Your task to perform on an android device: Show me the alarms in the clock app Image 0: 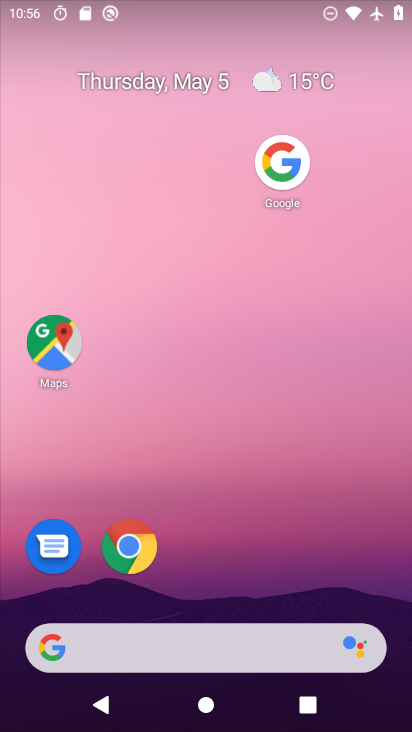
Step 0: drag from (214, 616) to (299, 141)
Your task to perform on an android device: Show me the alarms in the clock app Image 1: 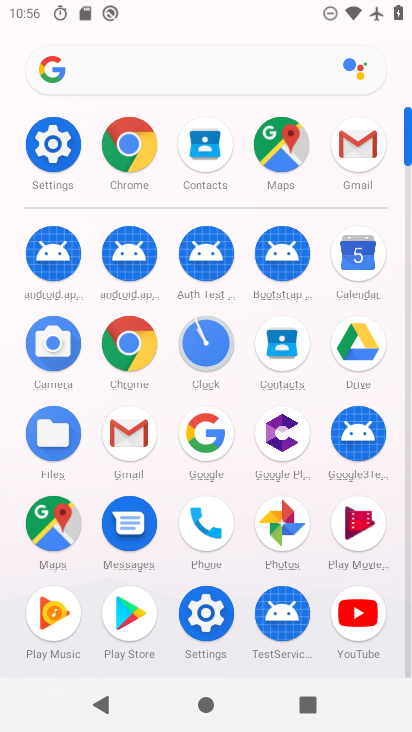
Step 1: click (204, 352)
Your task to perform on an android device: Show me the alarms in the clock app Image 2: 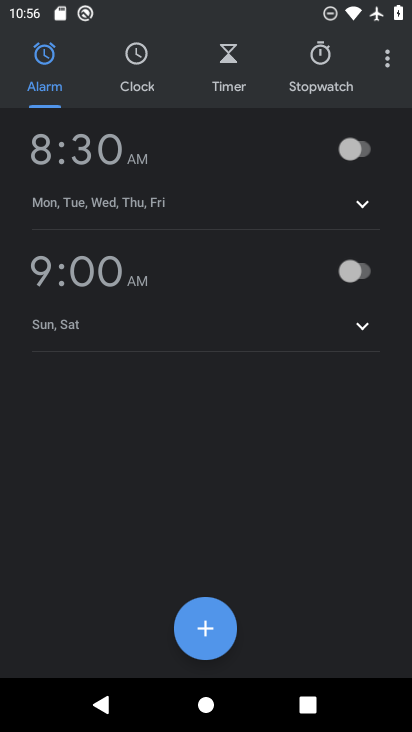
Step 2: task complete